Your task to perform on an android device: turn on translation in the chrome app Image 0: 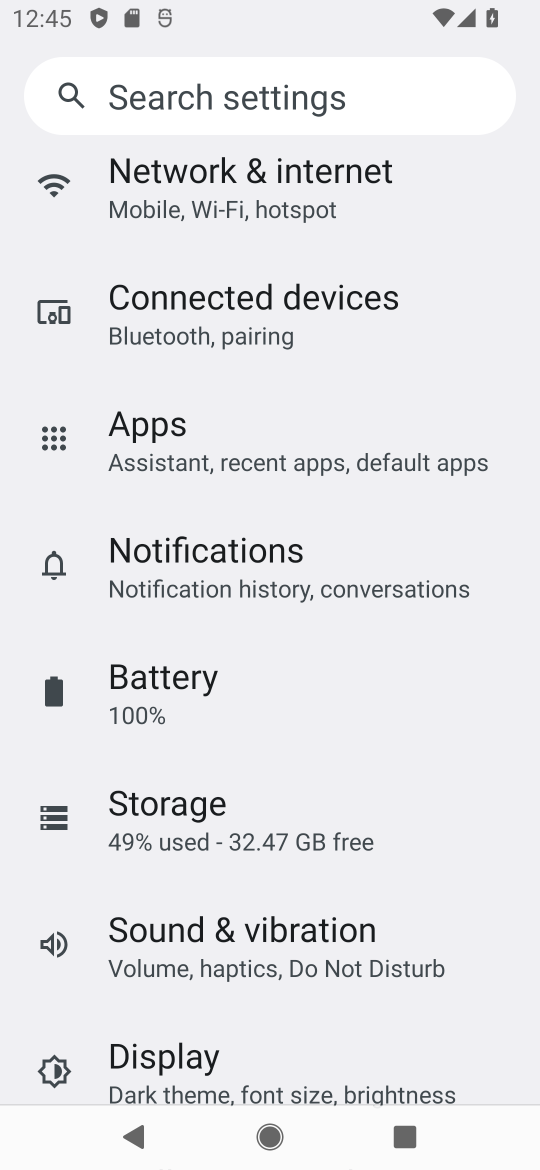
Step 0: press back button
Your task to perform on an android device: turn on translation in the chrome app Image 1: 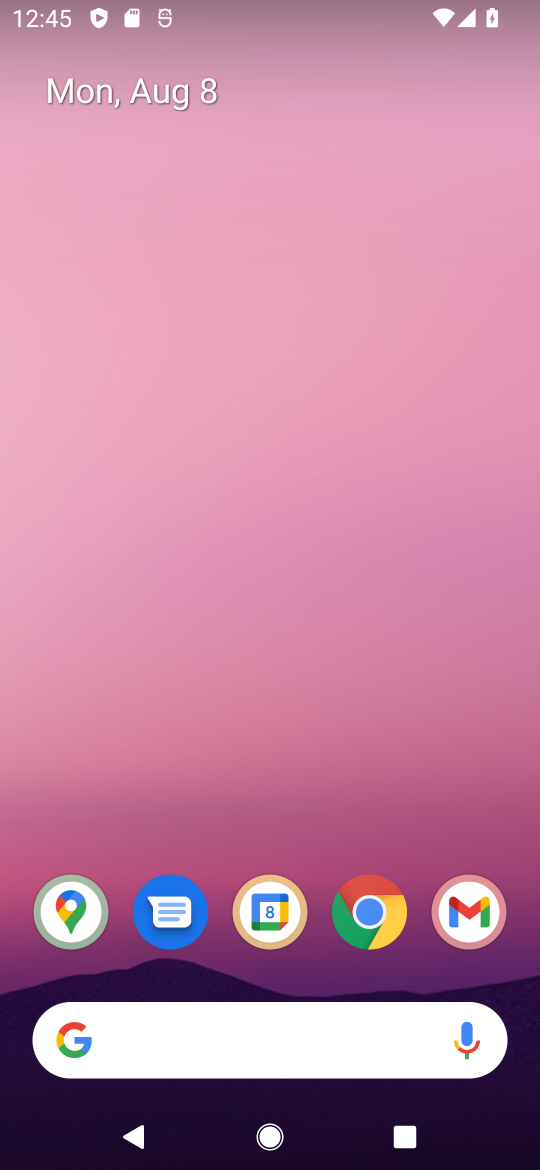
Step 1: click (349, 893)
Your task to perform on an android device: turn on translation in the chrome app Image 2: 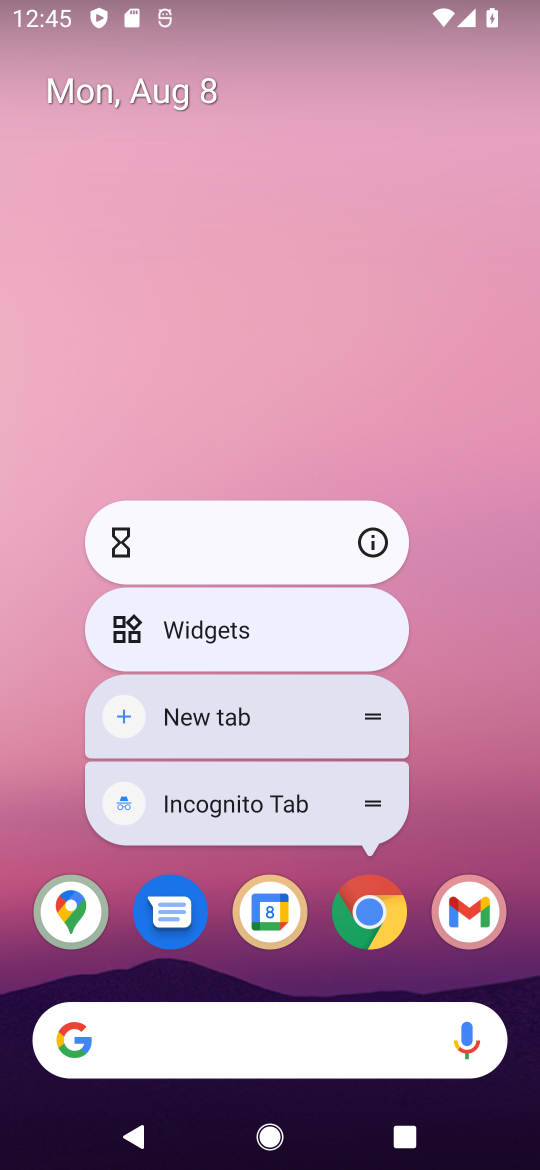
Step 2: click (357, 905)
Your task to perform on an android device: turn on translation in the chrome app Image 3: 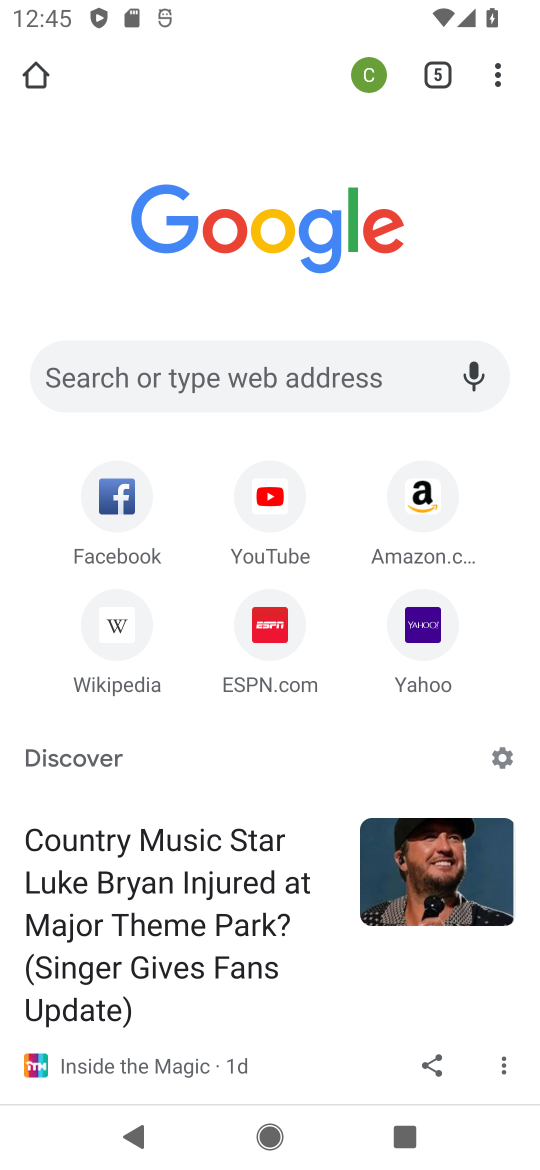
Step 3: drag from (509, 65) to (283, 819)
Your task to perform on an android device: turn on translation in the chrome app Image 4: 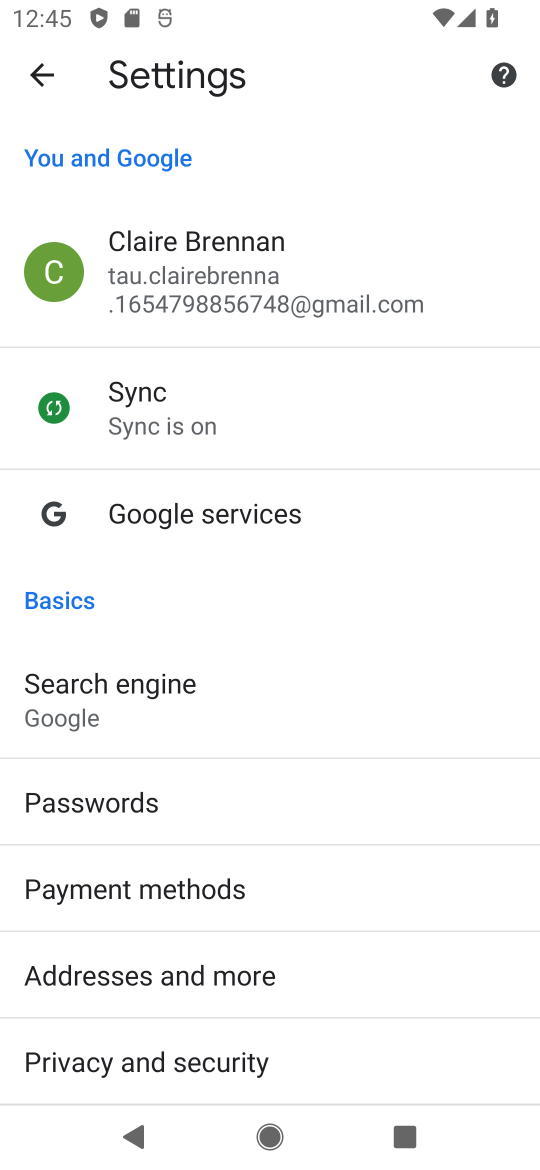
Step 4: drag from (134, 1015) to (306, 196)
Your task to perform on an android device: turn on translation in the chrome app Image 5: 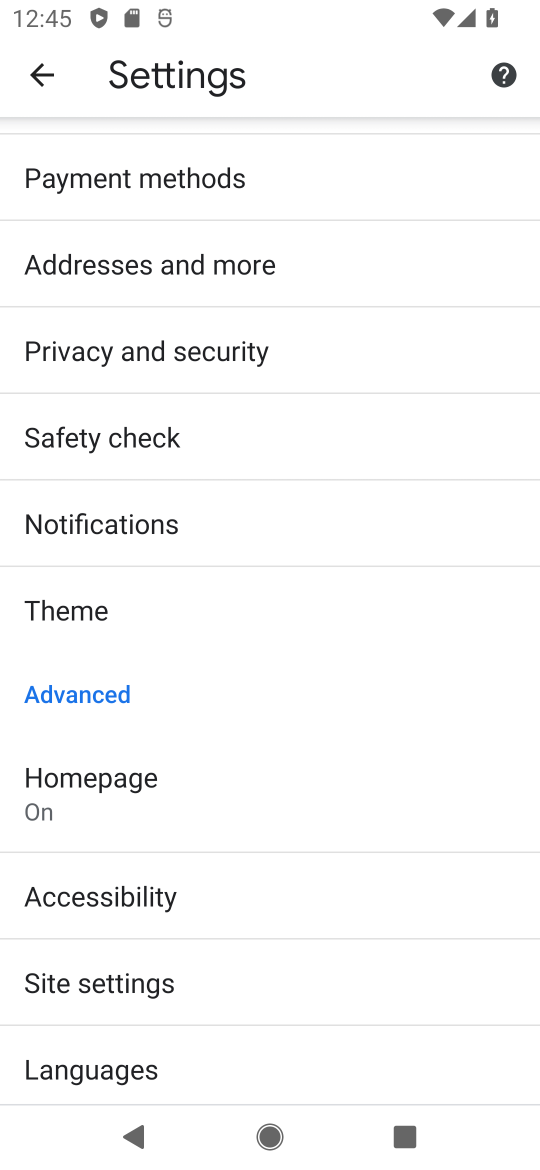
Step 5: drag from (119, 1000) to (338, 172)
Your task to perform on an android device: turn on translation in the chrome app Image 6: 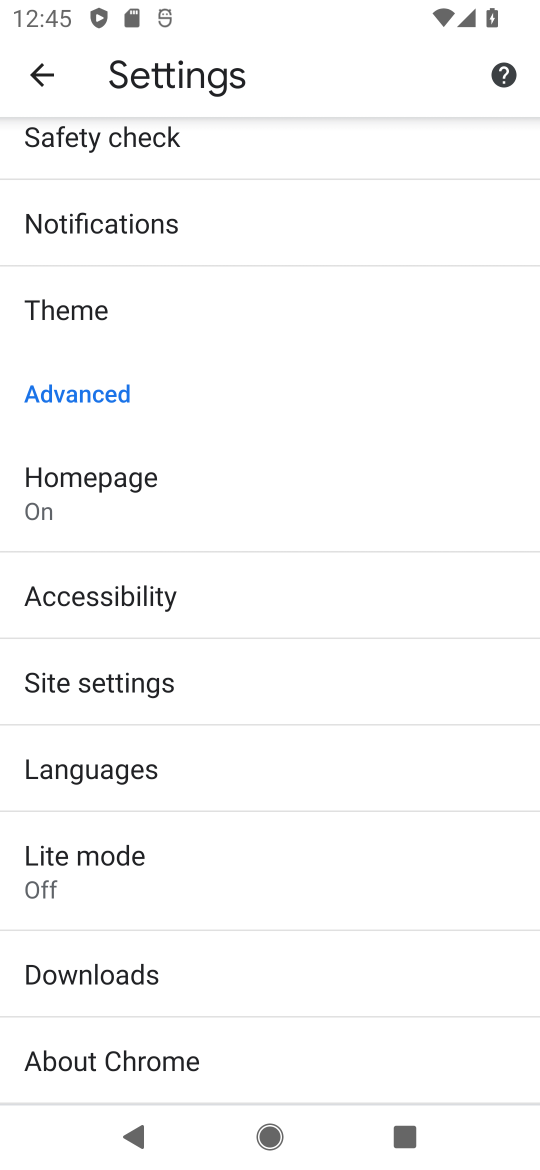
Step 6: click (49, 752)
Your task to perform on an android device: turn on translation in the chrome app Image 7: 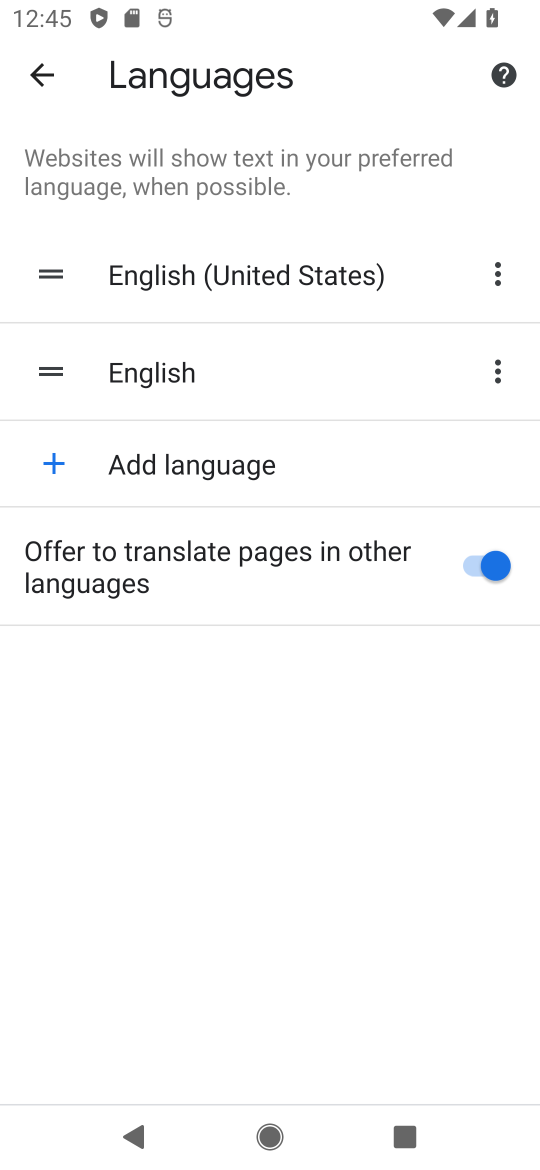
Step 7: task complete